Your task to perform on an android device: Go to display settings Image 0: 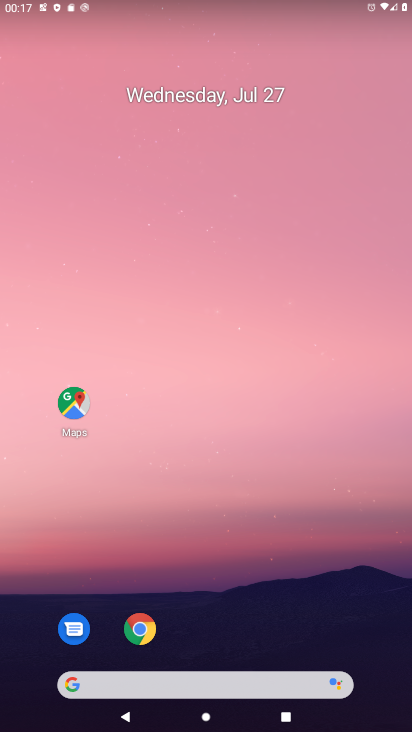
Step 0: drag from (231, 719) to (273, 230)
Your task to perform on an android device: Go to display settings Image 1: 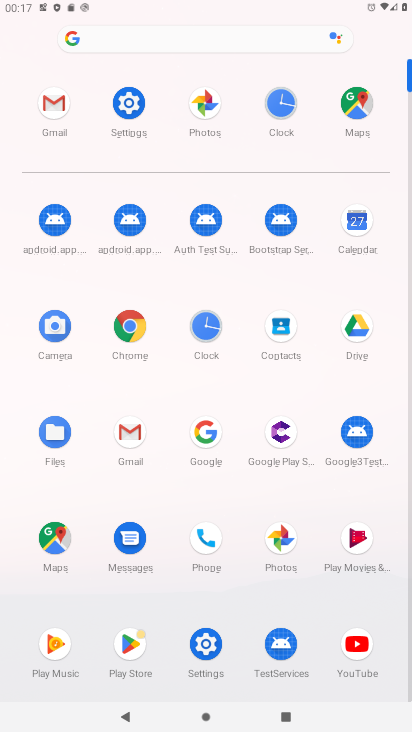
Step 1: click (126, 108)
Your task to perform on an android device: Go to display settings Image 2: 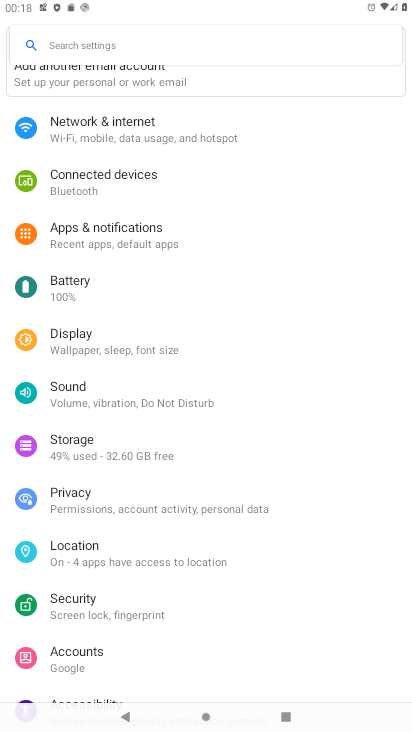
Step 2: click (84, 346)
Your task to perform on an android device: Go to display settings Image 3: 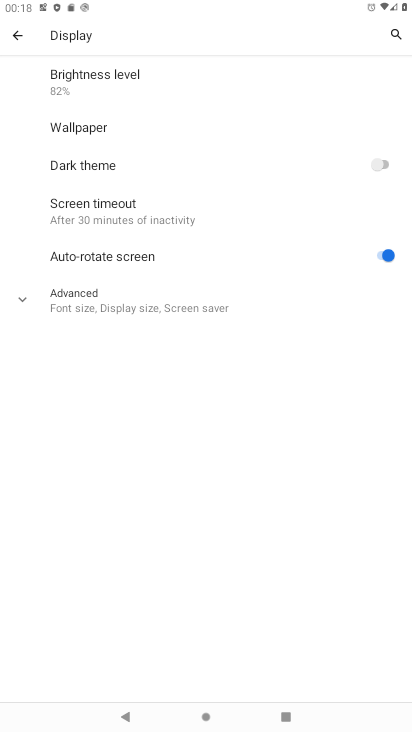
Step 3: task complete